Your task to perform on an android device: Go to CNN.com Image 0: 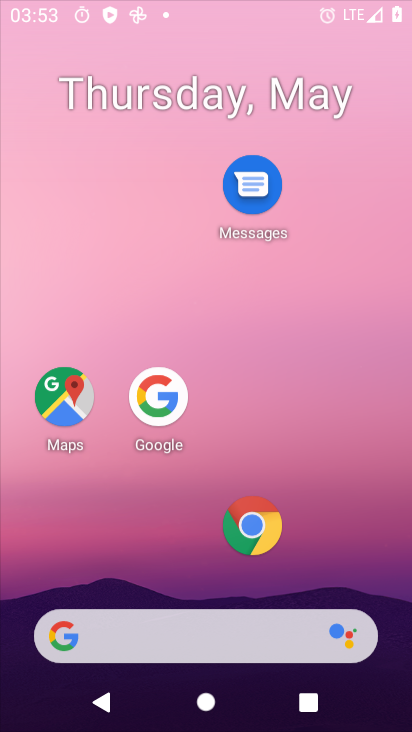
Step 0: click (252, 193)
Your task to perform on an android device: Go to CNN.com Image 1: 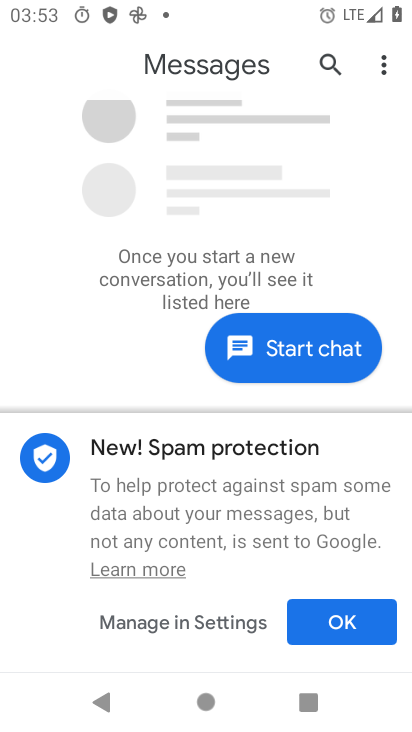
Step 1: press home button
Your task to perform on an android device: Go to CNN.com Image 2: 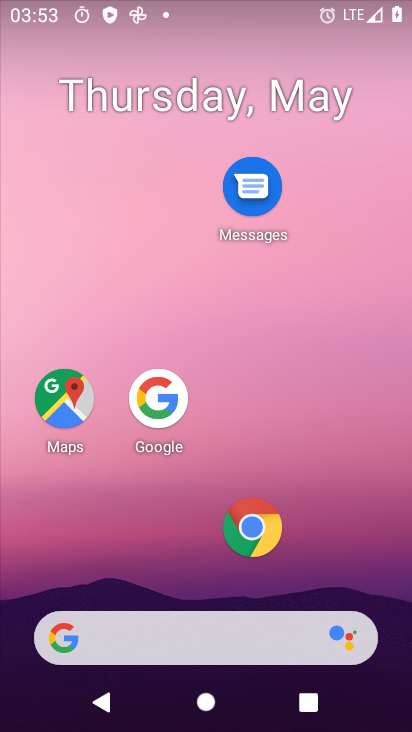
Step 2: drag from (205, 579) to (227, 190)
Your task to perform on an android device: Go to CNN.com Image 3: 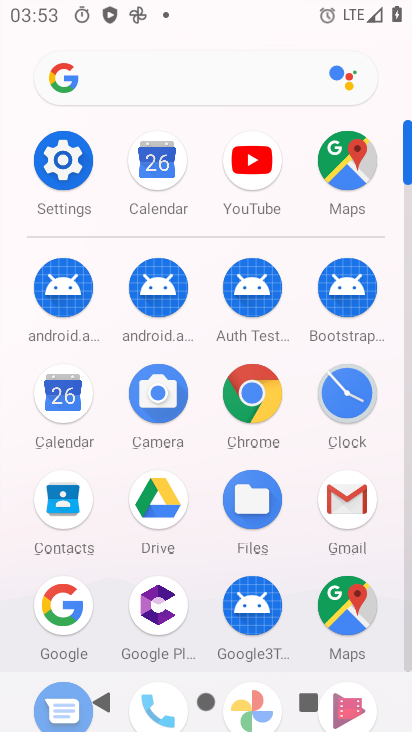
Step 3: click (196, 68)
Your task to perform on an android device: Go to CNN.com Image 4: 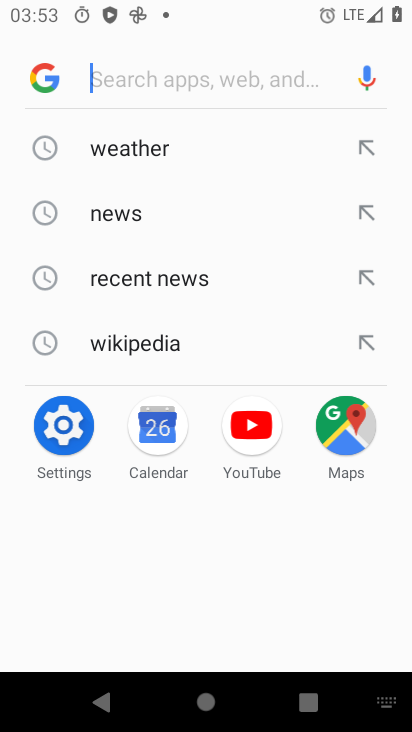
Step 4: click (169, 86)
Your task to perform on an android device: Go to CNN.com Image 5: 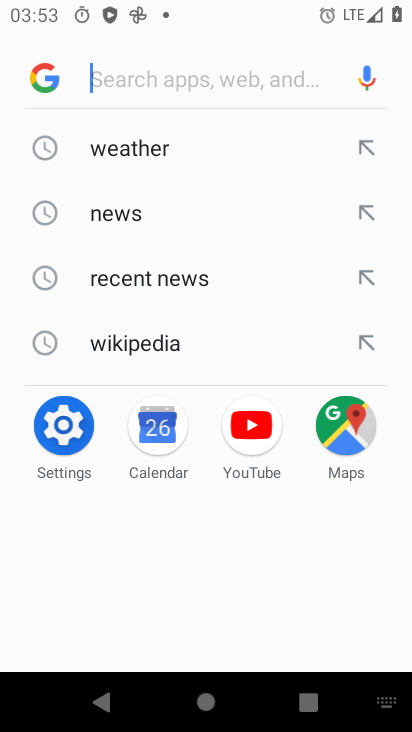
Step 5: type "CNN.com"
Your task to perform on an android device: Go to CNN.com Image 6: 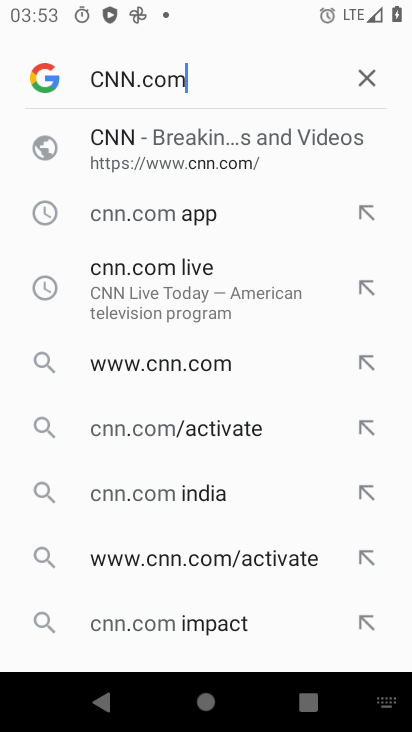
Step 6: type ""
Your task to perform on an android device: Go to CNN.com Image 7: 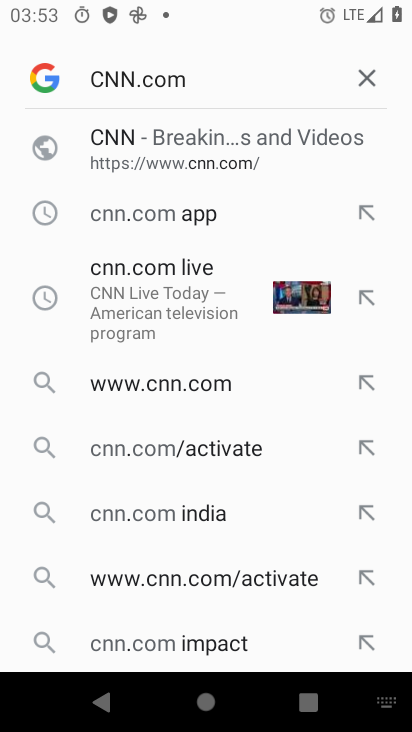
Step 7: click (122, 147)
Your task to perform on an android device: Go to CNN.com Image 8: 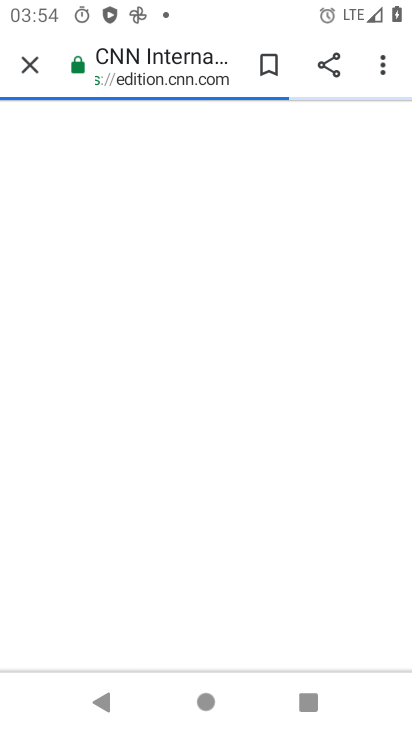
Step 8: task complete